Your task to perform on an android device: Go to settings Image 0: 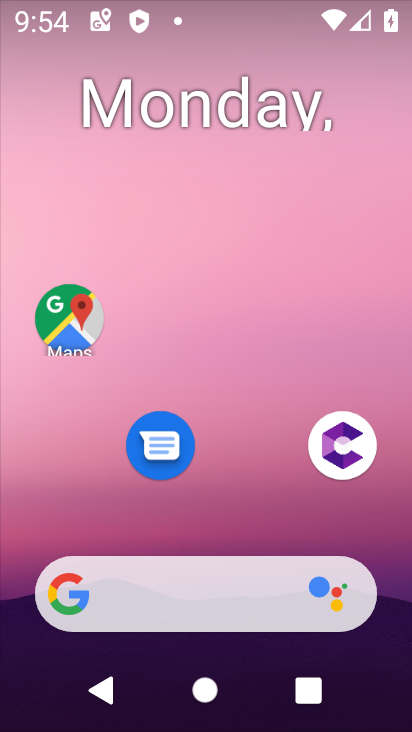
Step 0: press home button
Your task to perform on an android device: Go to settings Image 1: 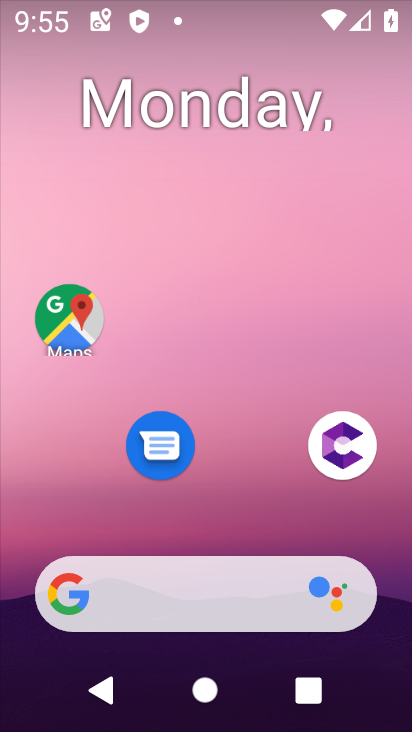
Step 1: drag from (217, 494) to (231, 39)
Your task to perform on an android device: Go to settings Image 2: 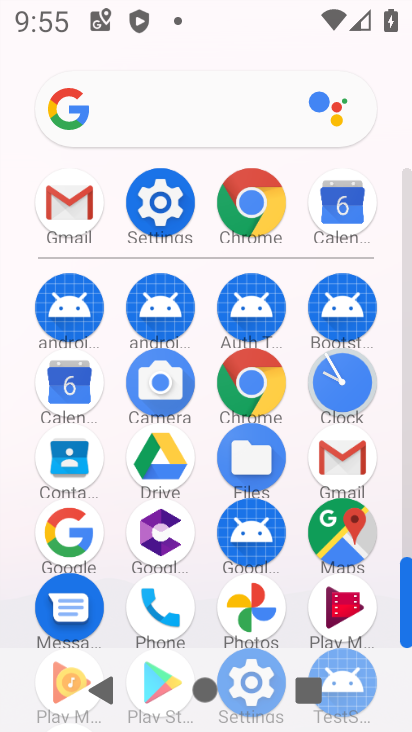
Step 2: click (171, 194)
Your task to perform on an android device: Go to settings Image 3: 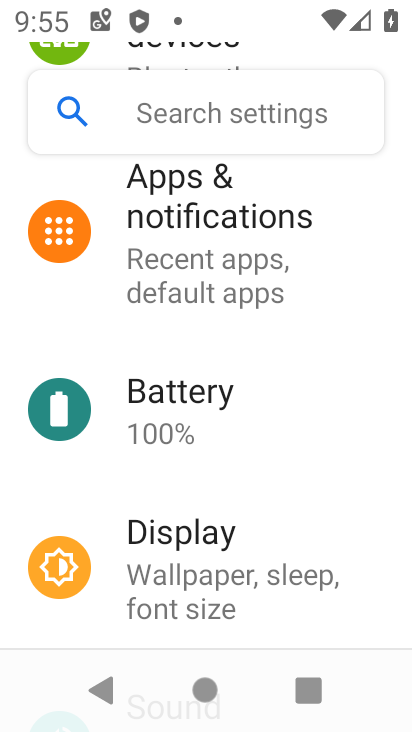
Step 3: task complete